Your task to perform on an android device: Search for seafood restaurants on Google Maps Image 0: 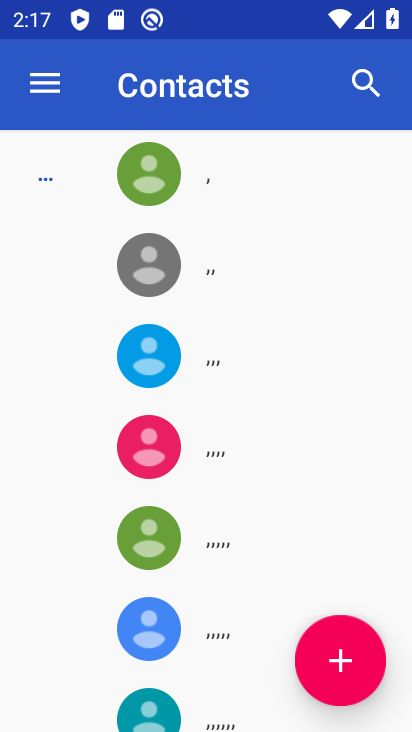
Step 0: press home button
Your task to perform on an android device: Search for seafood restaurants on Google Maps Image 1: 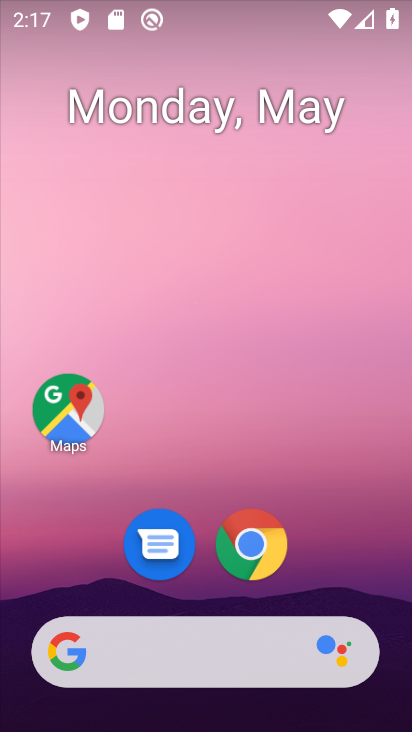
Step 1: click (85, 423)
Your task to perform on an android device: Search for seafood restaurants on Google Maps Image 2: 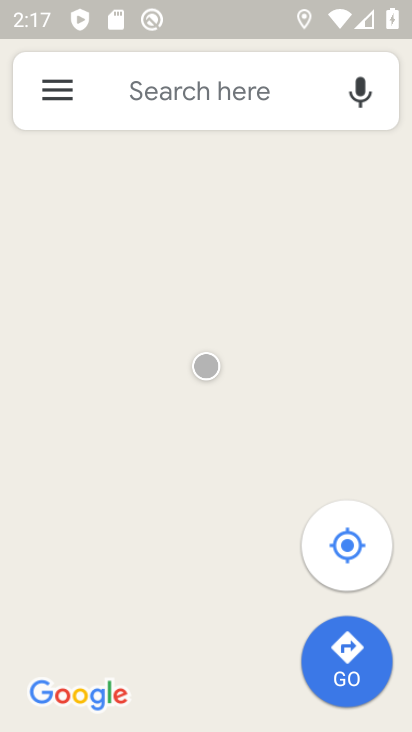
Step 2: click (173, 95)
Your task to perform on an android device: Search for seafood restaurants on Google Maps Image 3: 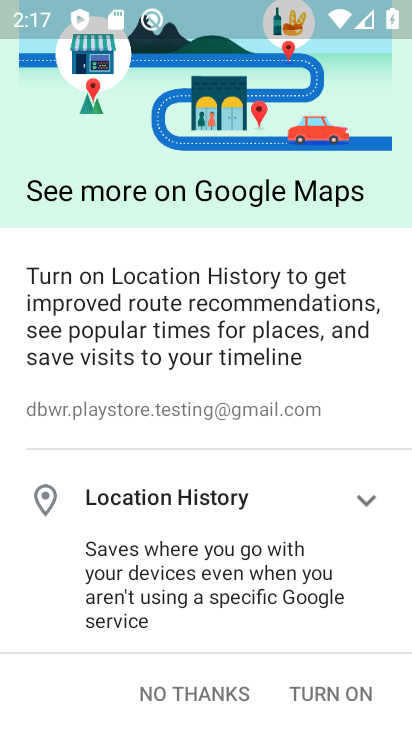
Step 3: click (307, 701)
Your task to perform on an android device: Search for seafood restaurants on Google Maps Image 4: 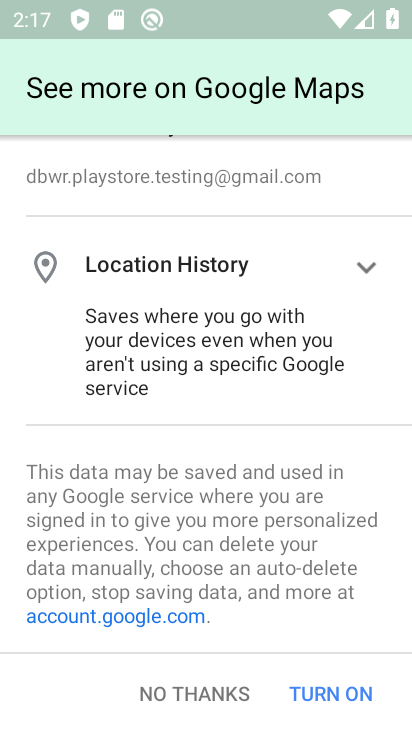
Step 4: click (307, 701)
Your task to perform on an android device: Search for seafood restaurants on Google Maps Image 5: 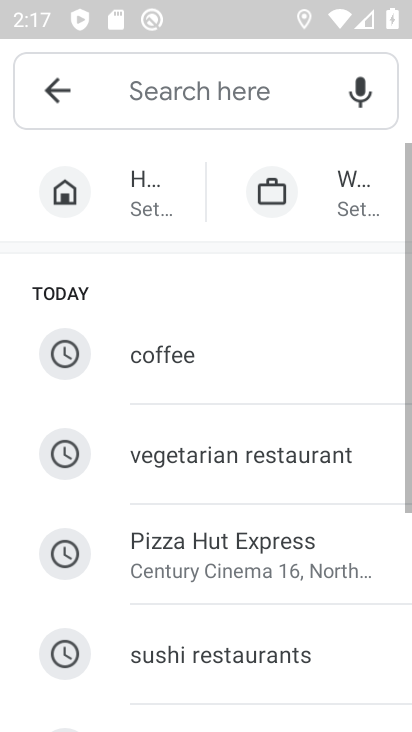
Step 5: click (181, 91)
Your task to perform on an android device: Search for seafood restaurants on Google Maps Image 6: 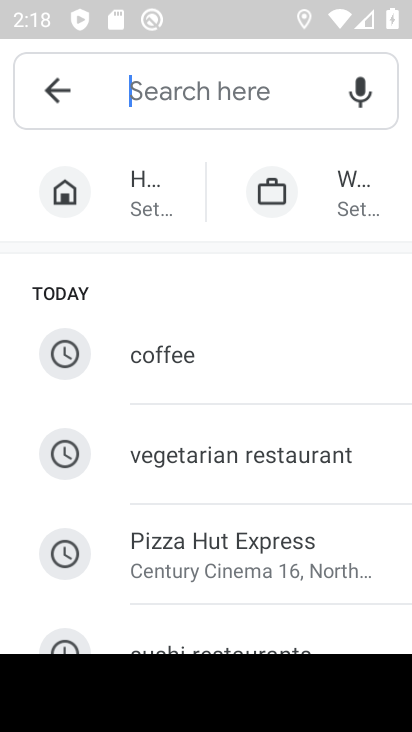
Step 6: type "seafood restaurants"
Your task to perform on an android device: Search for seafood restaurants on Google Maps Image 7: 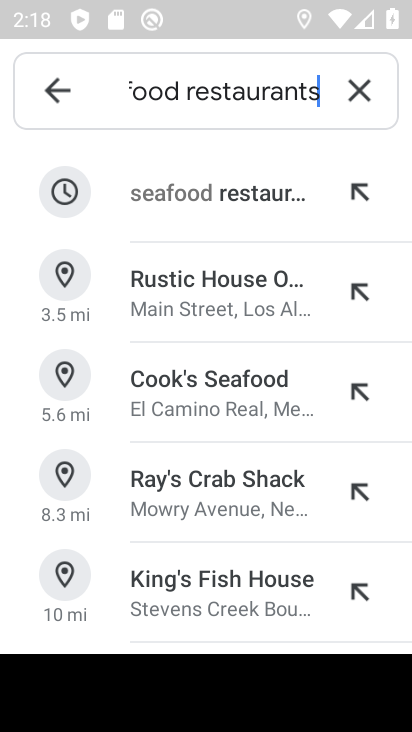
Step 7: click (202, 205)
Your task to perform on an android device: Search for seafood restaurants on Google Maps Image 8: 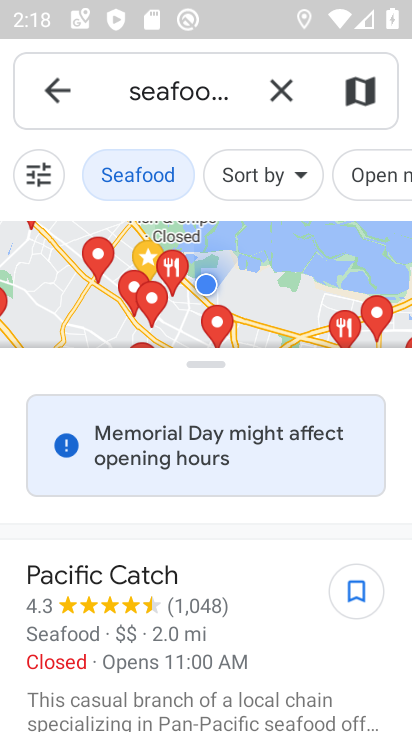
Step 8: task complete